Your task to perform on an android device: add a label to a message in the gmail app Image 0: 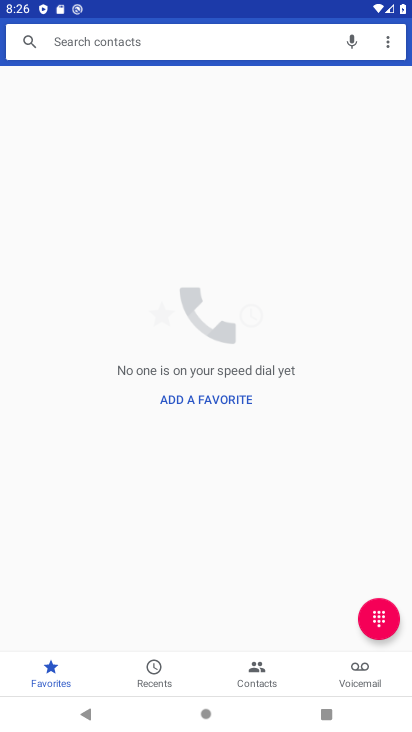
Step 0: press back button
Your task to perform on an android device: add a label to a message in the gmail app Image 1: 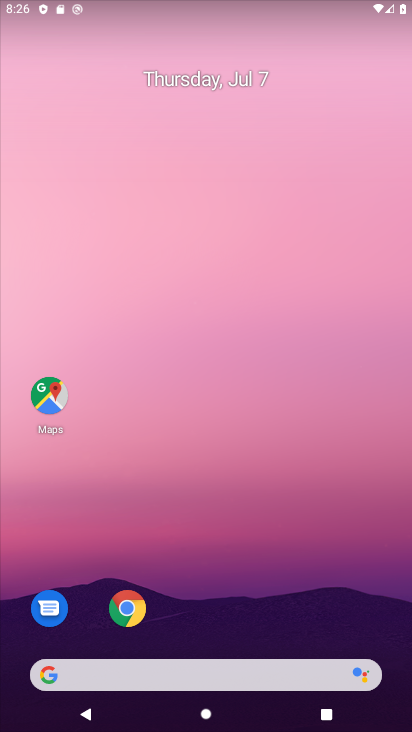
Step 1: drag from (260, 697) to (110, 129)
Your task to perform on an android device: add a label to a message in the gmail app Image 2: 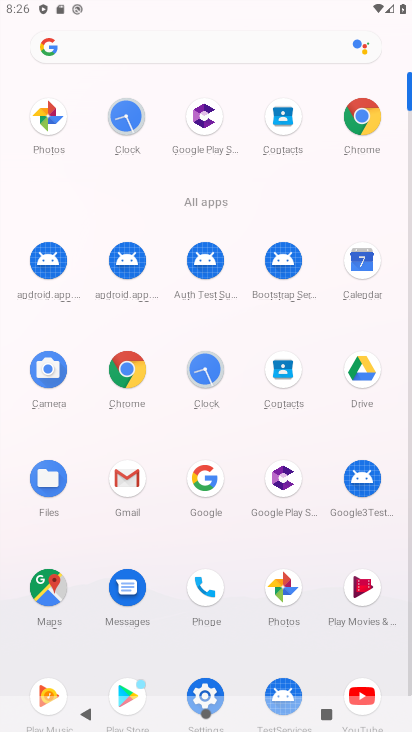
Step 2: click (139, 477)
Your task to perform on an android device: add a label to a message in the gmail app Image 3: 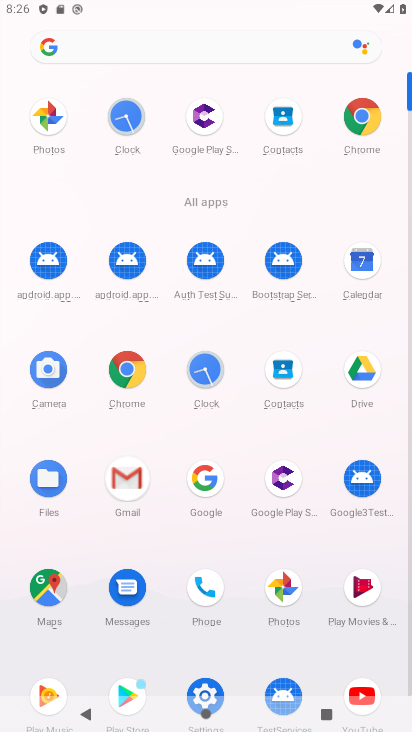
Step 3: click (138, 477)
Your task to perform on an android device: add a label to a message in the gmail app Image 4: 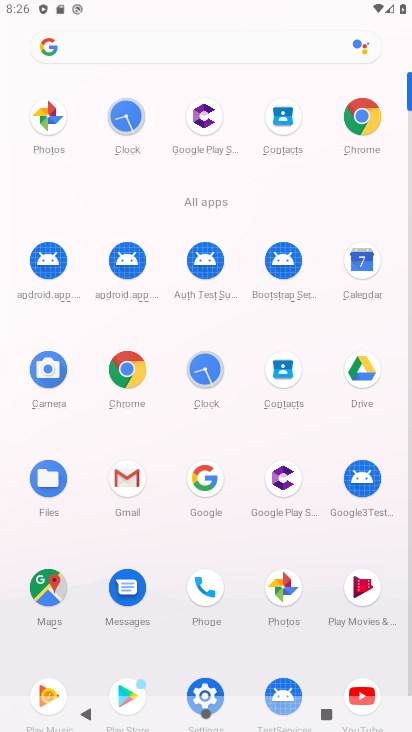
Step 4: click (133, 477)
Your task to perform on an android device: add a label to a message in the gmail app Image 5: 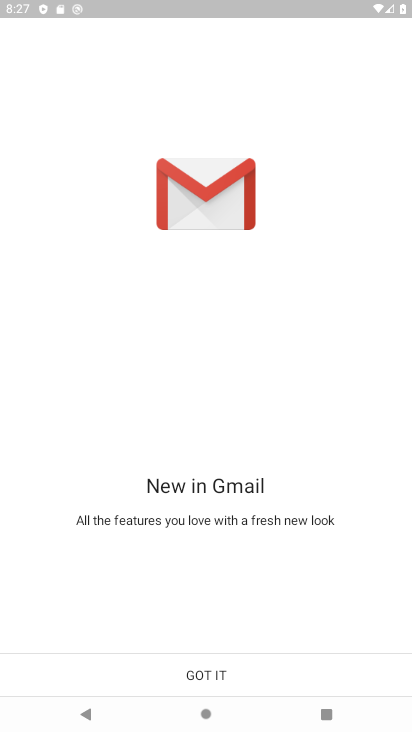
Step 5: click (223, 672)
Your task to perform on an android device: add a label to a message in the gmail app Image 6: 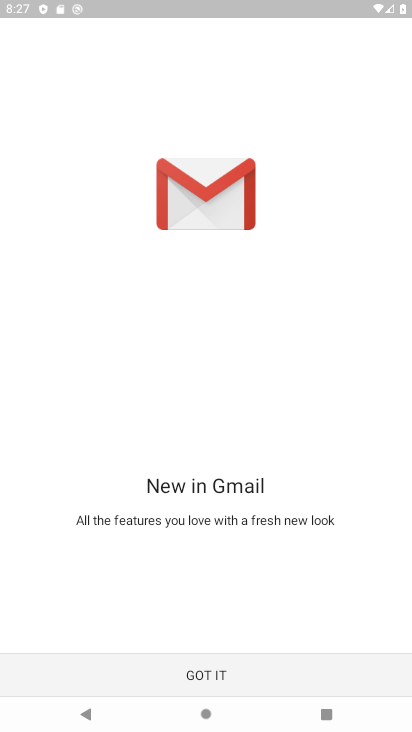
Step 6: click (225, 671)
Your task to perform on an android device: add a label to a message in the gmail app Image 7: 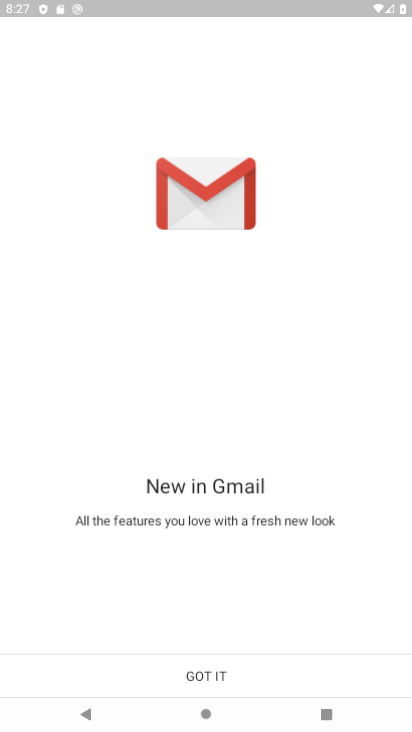
Step 7: click (227, 667)
Your task to perform on an android device: add a label to a message in the gmail app Image 8: 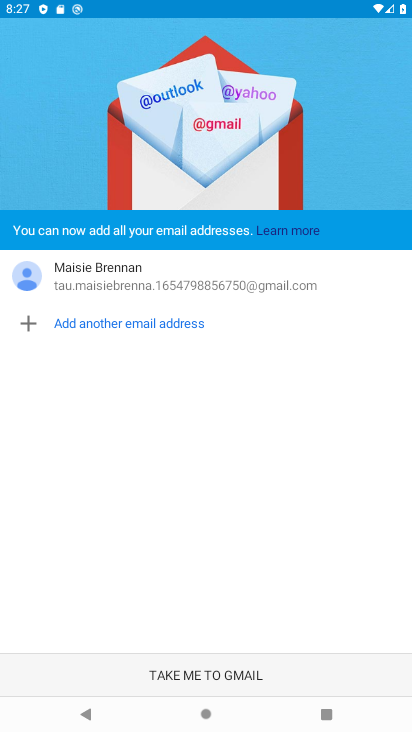
Step 8: click (230, 670)
Your task to perform on an android device: add a label to a message in the gmail app Image 9: 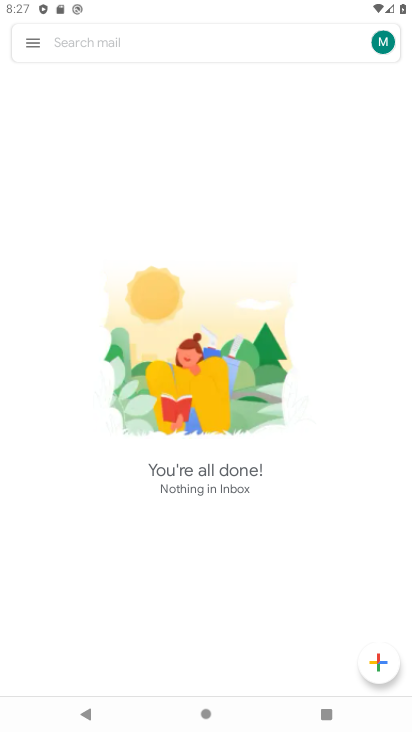
Step 9: click (29, 47)
Your task to perform on an android device: add a label to a message in the gmail app Image 10: 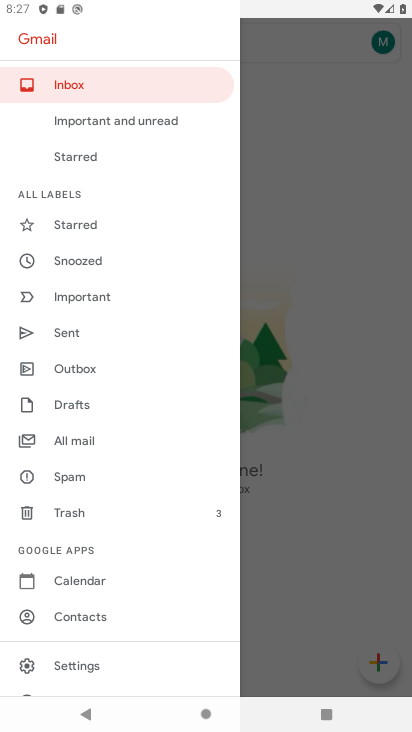
Step 10: click (79, 440)
Your task to perform on an android device: add a label to a message in the gmail app Image 11: 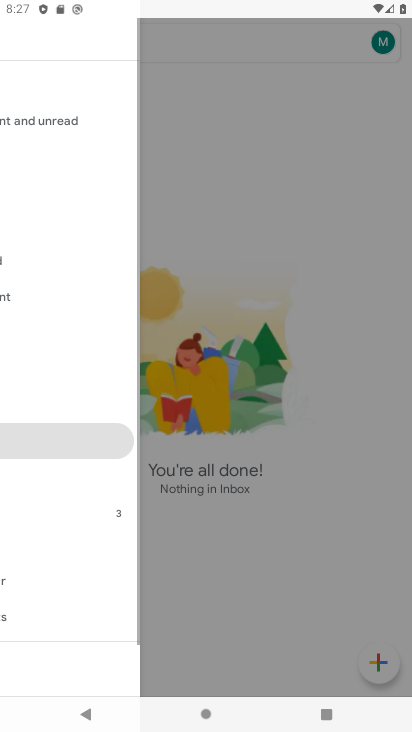
Step 11: click (88, 434)
Your task to perform on an android device: add a label to a message in the gmail app Image 12: 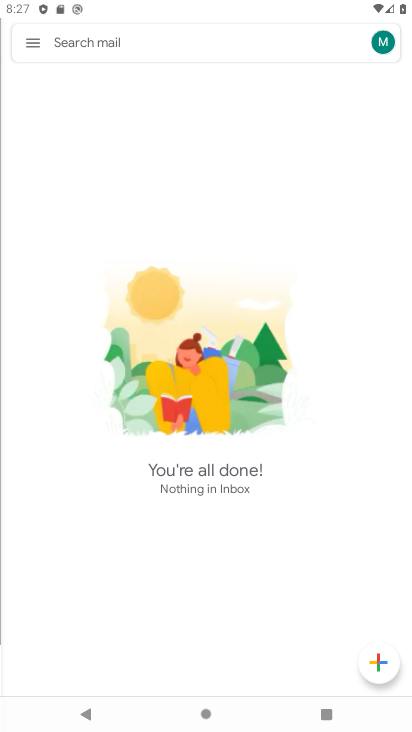
Step 12: click (92, 438)
Your task to perform on an android device: add a label to a message in the gmail app Image 13: 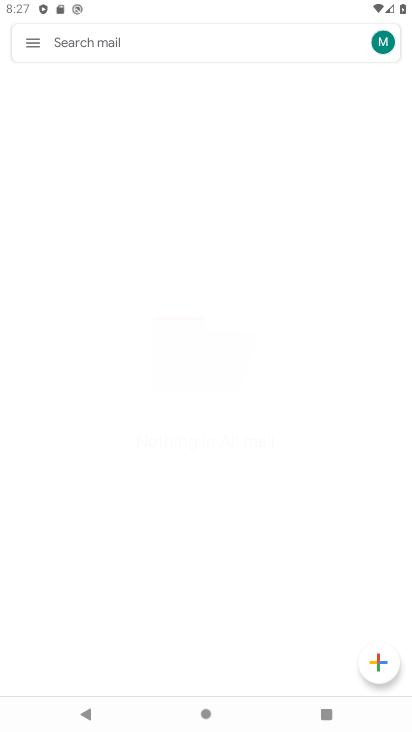
Step 13: click (92, 439)
Your task to perform on an android device: add a label to a message in the gmail app Image 14: 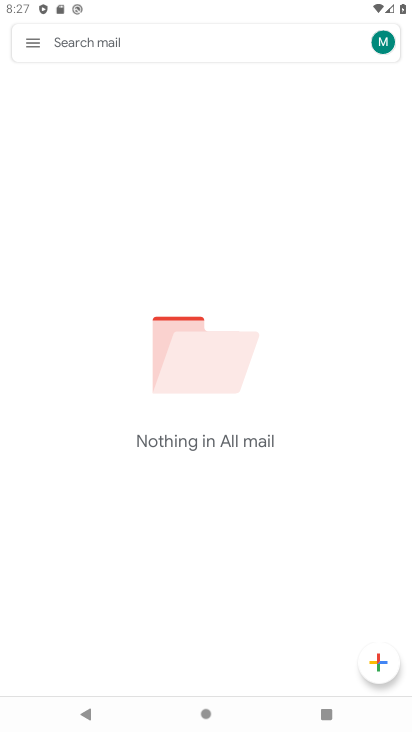
Step 14: task complete